Your task to perform on an android device: open chrome privacy settings Image 0: 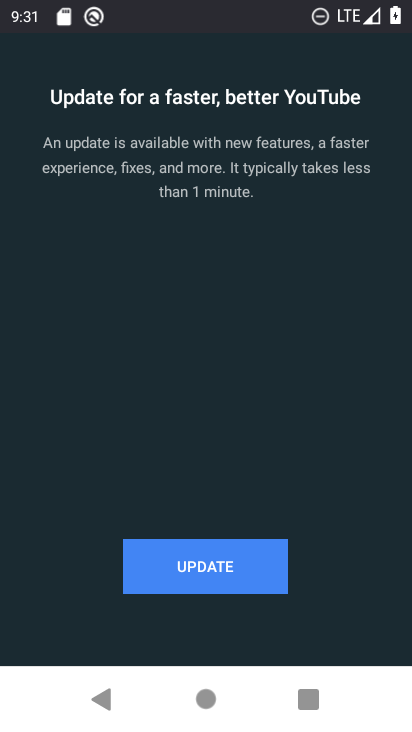
Step 0: press home button
Your task to perform on an android device: open chrome privacy settings Image 1: 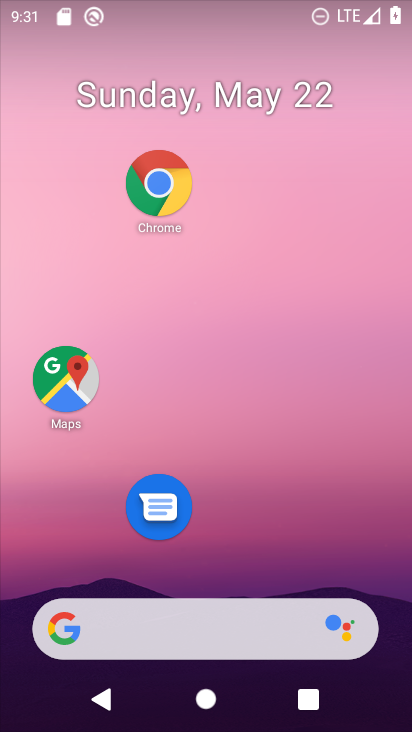
Step 1: click (157, 174)
Your task to perform on an android device: open chrome privacy settings Image 2: 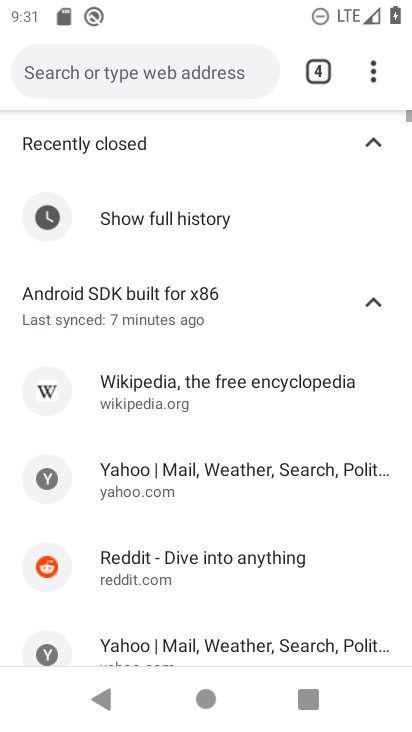
Step 2: click (376, 70)
Your task to perform on an android device: open chrome privacy settings Image 3: 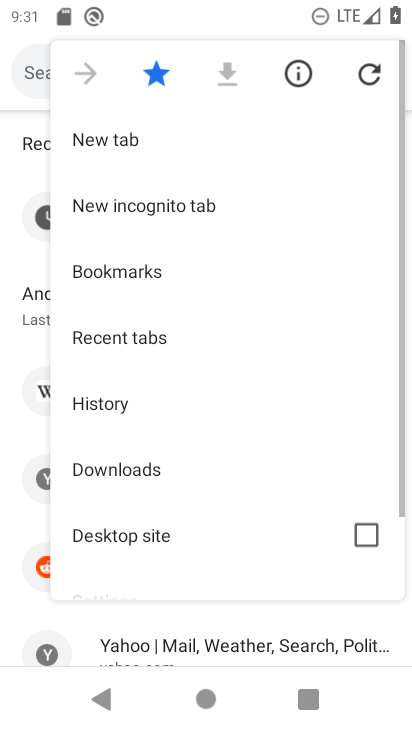
Step 3: drag from (181, 516) to (233, 88)
Your task to perform on an android device: open chrome privacy settings Image 4: 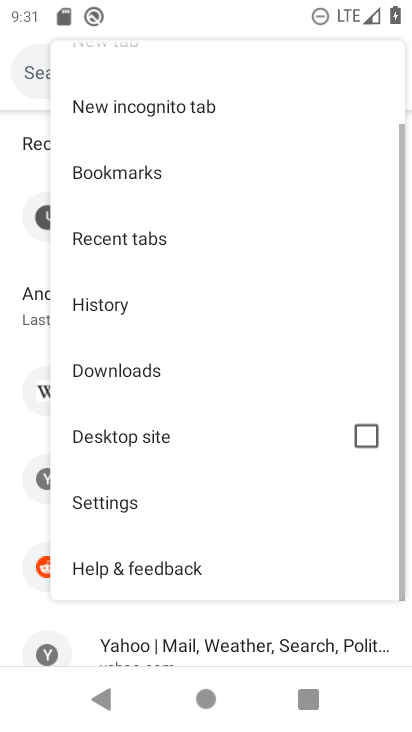
Step 4: click (139, 502)
Your task to perform on an android device: open chrome privacy settings Image 5: 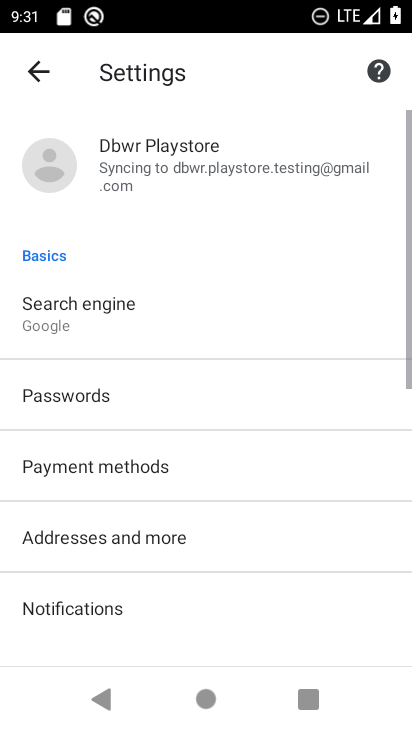
Step 5: drag from (188, 562) to (195, 116)
Your task to perform on an android device: open chrome privacy settings Image 6: 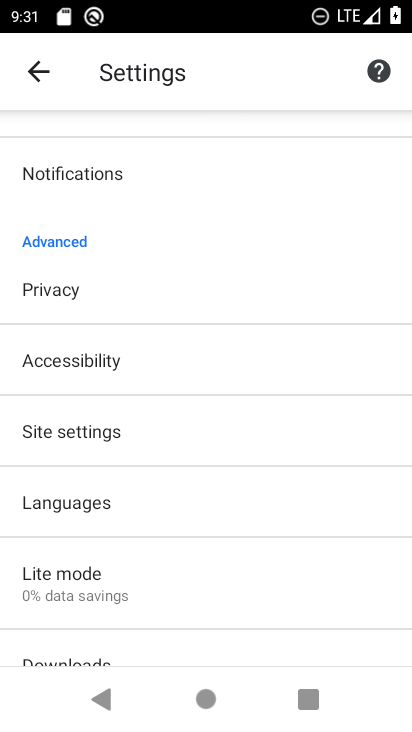
Step 6: click (158, 298)
Your task to perform on an android device: open chrome privacy settings Image 7: 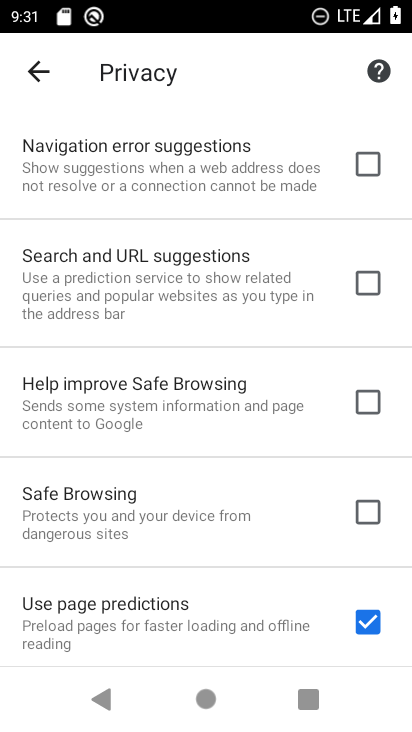
Step 7: task complete